Your task to perform on an android device: Open Chrome and go to the settings page Image 0: 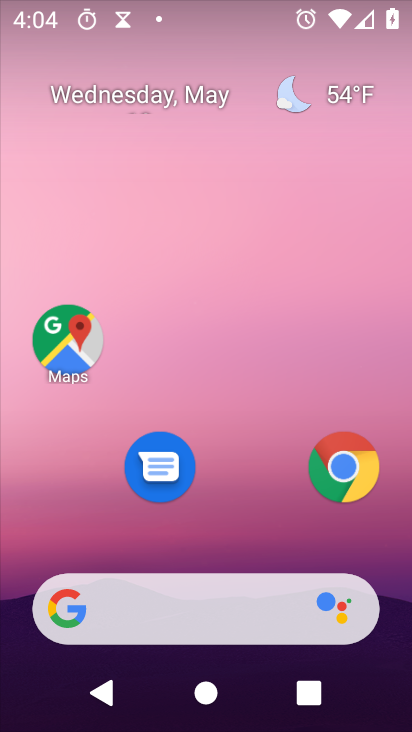
Step 0: drag from (270, 540) to (267, 137)
Your task to perform on an android device: Open Chrome and go to the settings page Image 1: 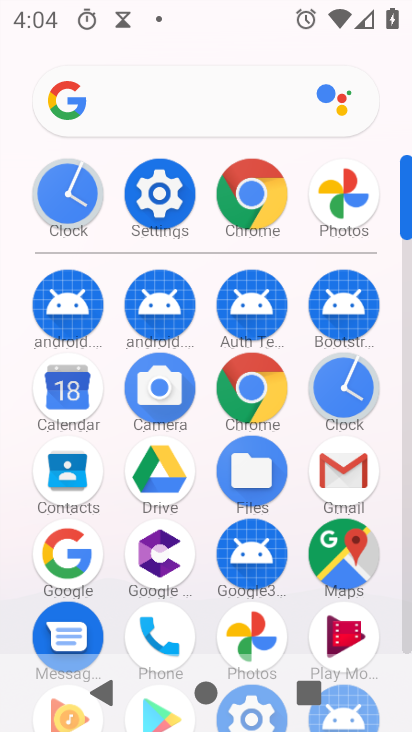
Step 1: click (287, 181)
Your task to perform on an android device: Open Chrome and go to the settings page Image 2: 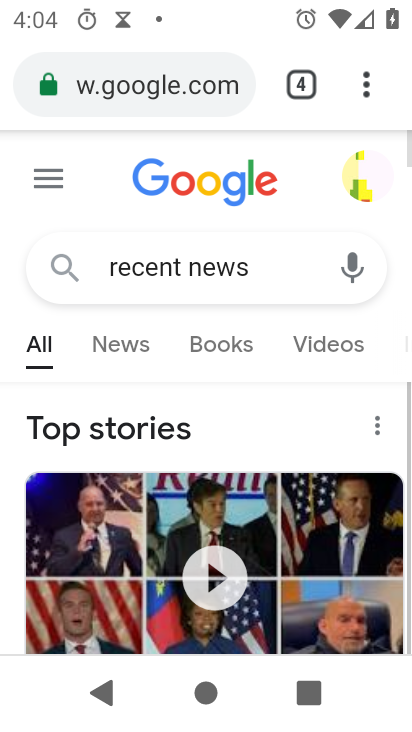
Step 2: click (369, 93)
Your task to perform on an android device: Open Chrome and go to the settings page Image 3: 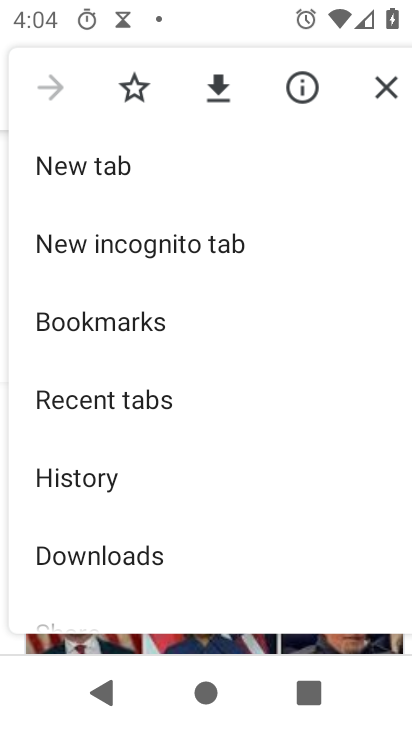
Step 3: drag from (248, 532) to (141, 165)
Your task to perform on an android device: Open Chrome and go to the settings page Image 4: 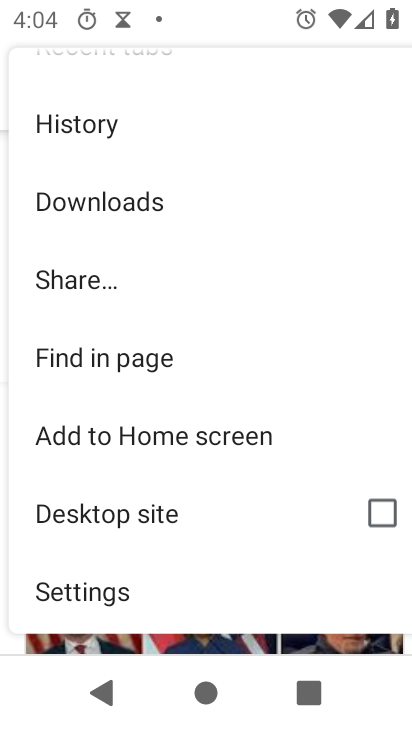
Step 4: click (149, 593)
Your task to perform on an android device: Open Chrome and go to the settings page Image 5: 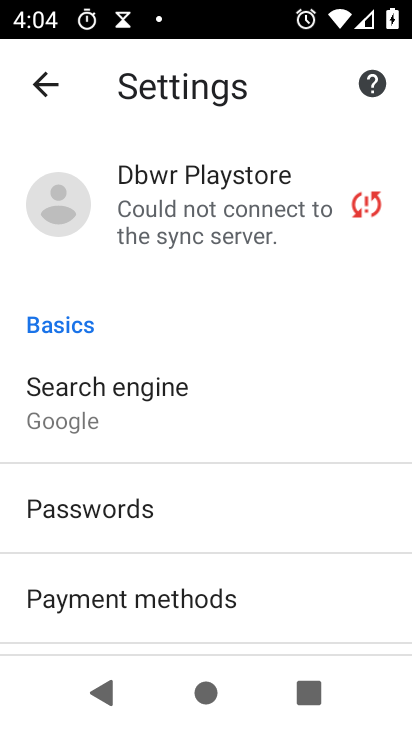
Step 5: task complete